Your task to perform on an android device: Go to calendar. Show me events next week Image 0: 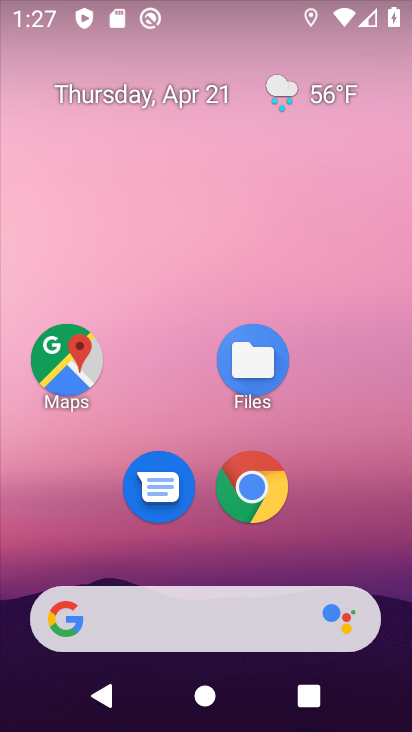
Step 0: drag from (350, 527) to (354, 168)
Your task to perform on an android device: Go to calendar. Show me events next week Image 1: 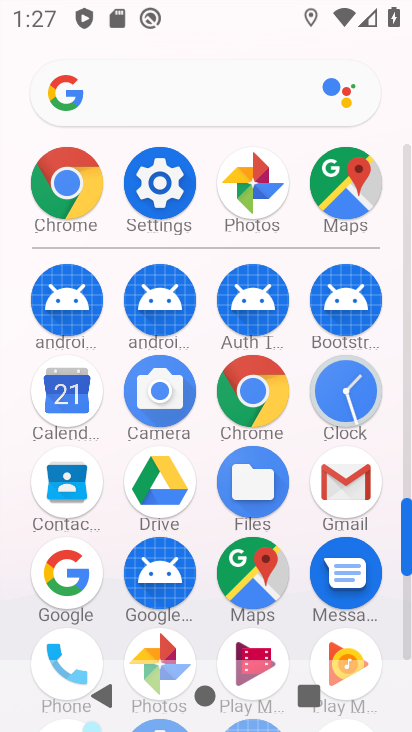
Step 1: click (56, 399)
Your task to perform on an android device: Go to calendar. Show me events next week Image 2: 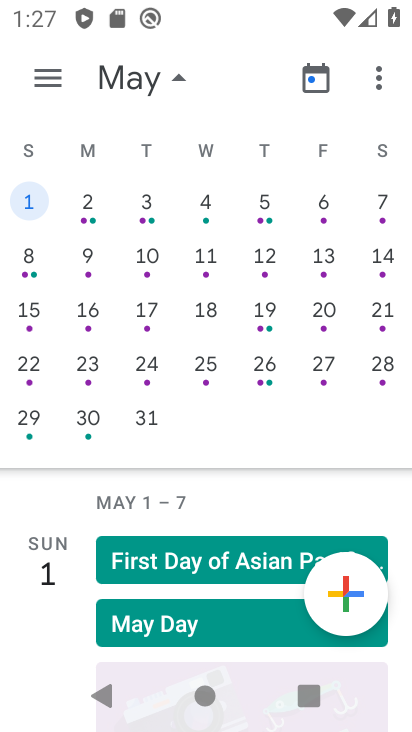
Step 2: drag from (68, 186) to (334, 195)
Your task to perform on an android device: Go to calendar. Show me events next week Image 3: 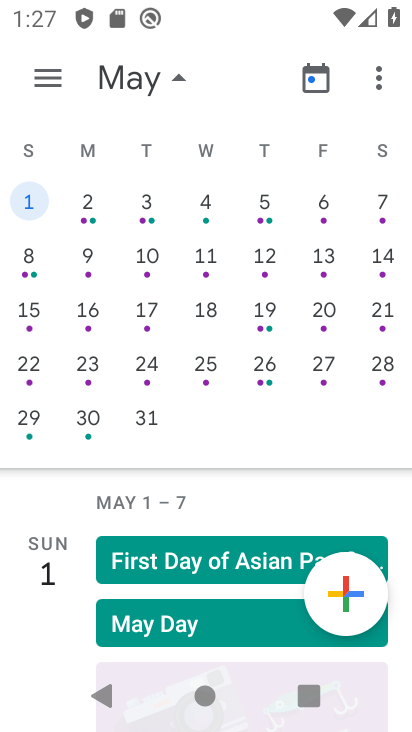
Step 3: drag from (66, 184) to (406, 360)
Your task to perform on an android device: Go to calendar. Show me events next week Image 4: 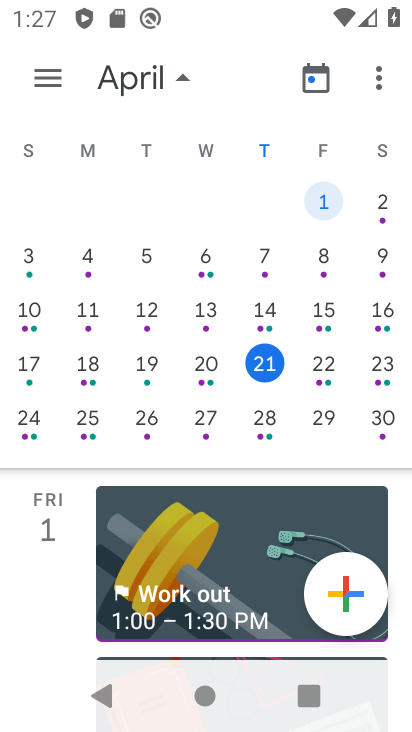
Step 4: click (30, 411)
Your task to perform on an android device: Go to calendar. Show me events next week Image 5: 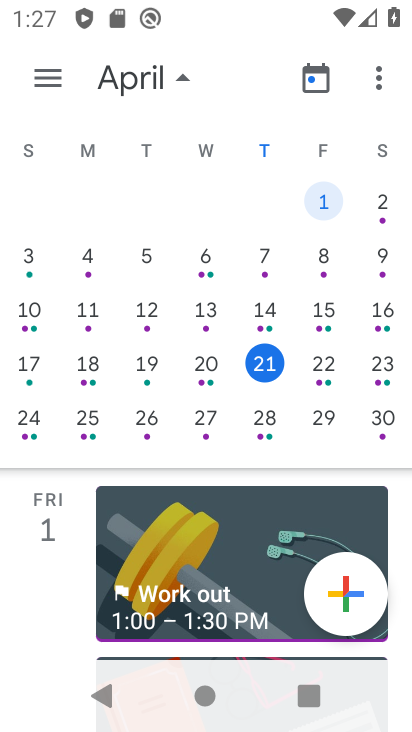
Step 5: click (36, 421)
Your task to perform on an android device: Go to calendar. Show me events next week Image 6: 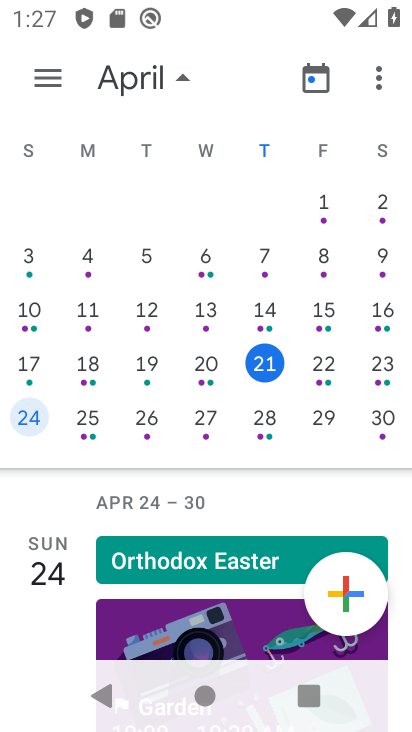
Step 6: task complete